Your task to perform on an android device: Open Amazon Image 0: 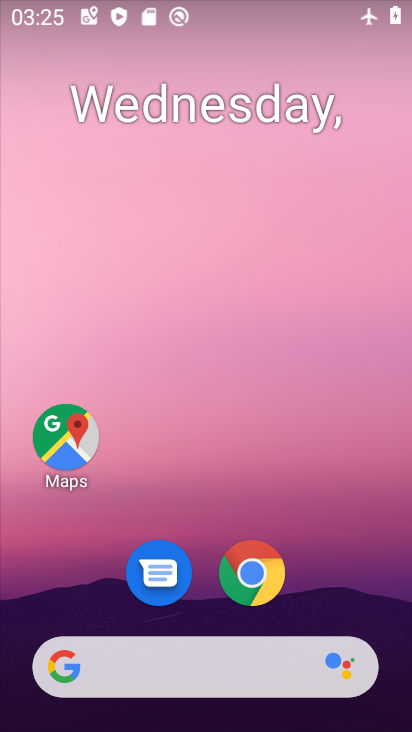
Step 0: click (253, 568)
Your task to perform on an android device: Open Amazon Image 1: 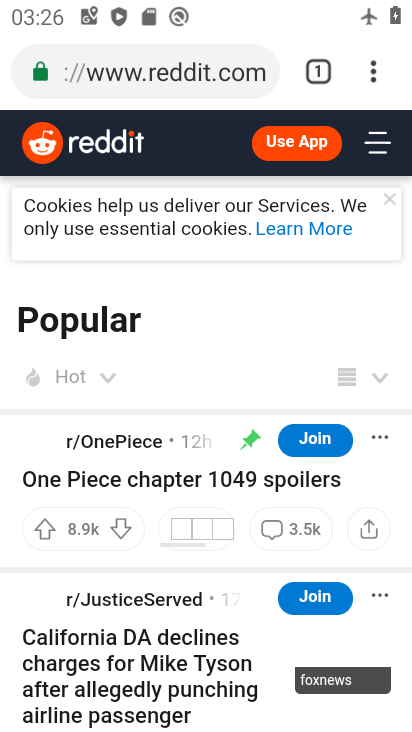
Step 1: click (214, 64)
Your task to perform on an android device: Open Amazon Image 2: 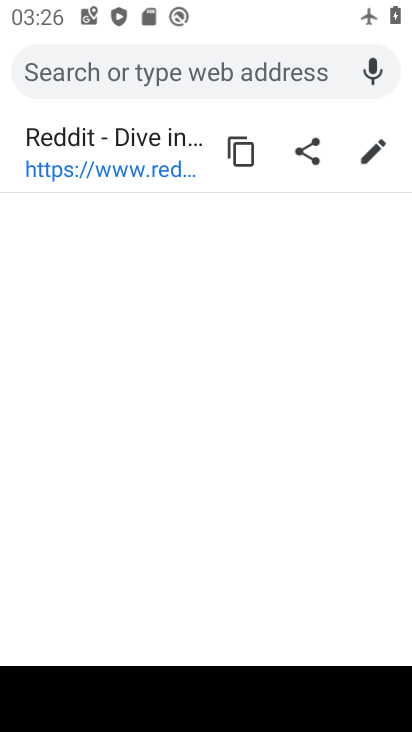
Step 2: type "Amazone"
Your task to perform on an android device: Open Amazon Image 3: 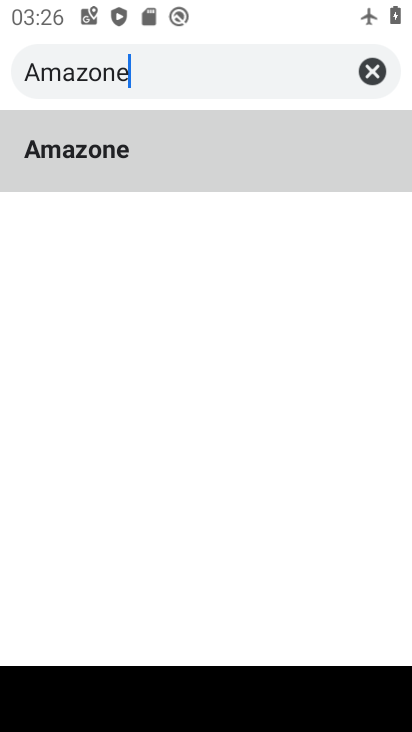
Step 3: click (79, 151)
Your task to perform on an android device: Open Amazon Image 4: 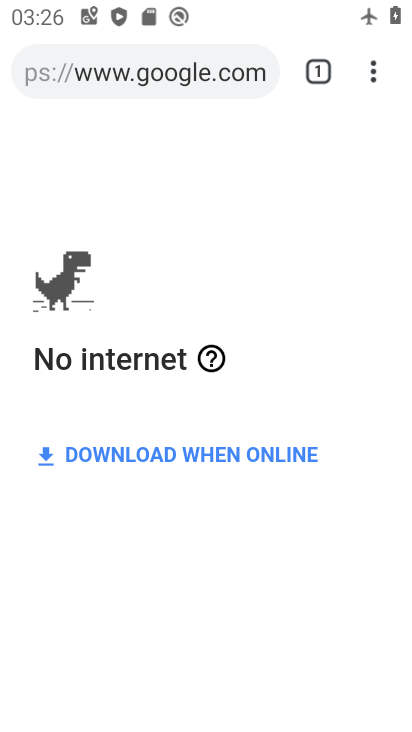
Step 4: task complete